Your task to perform on an android device: set the stopwatch Image 0: 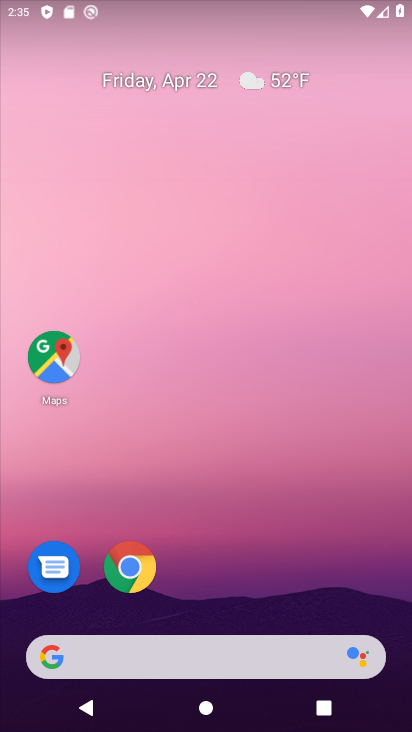
Step 0: drag from (230, 560) to (205, 56)
Your task to perform on an android device: set the stopwatch Image 1: 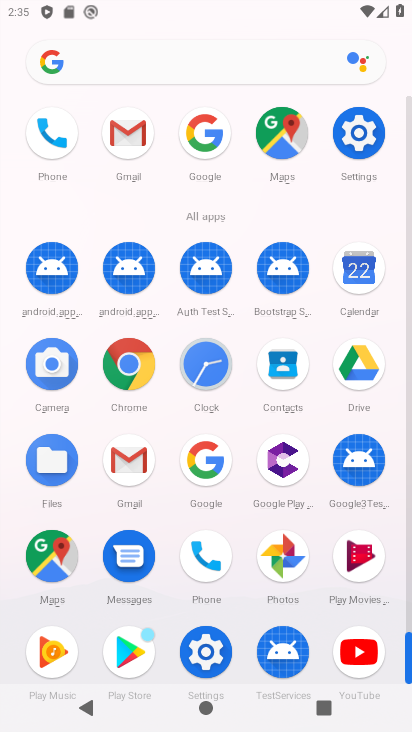
Step 1: click (207, 370)
Your task to perform on an android device: set the stopwatch Image 2: 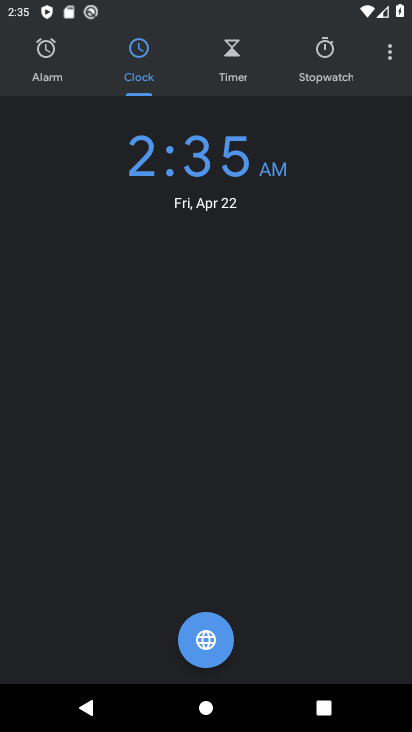
Step 2: click (322, 53)
Your task to perform on an android device: set the stopwatch Image 3: 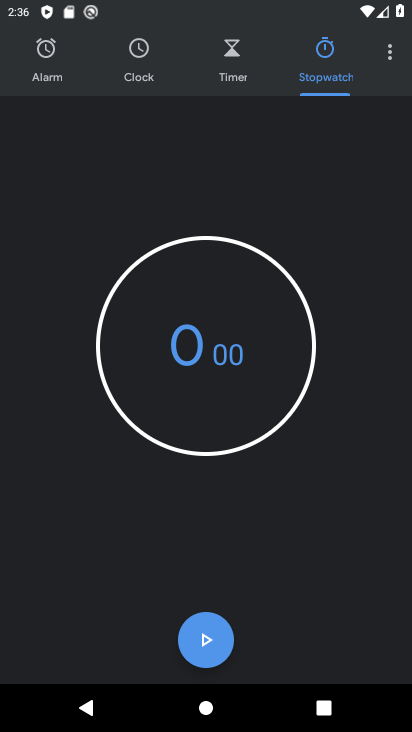
Step 3: click (221, 637)
Your task to perform on an android device: set the stopwatch Image 4: 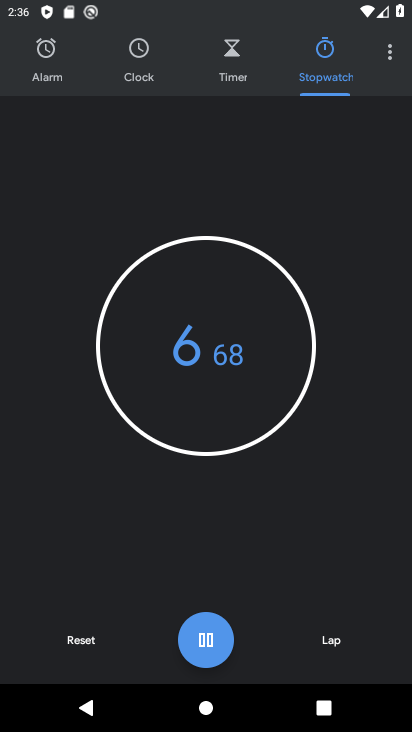
Step 4: task complete